Your task to perform on an android device: Clear the shopping cart on newegg. Search for logitech g pro on newegg, select the first entry, and add it to the cart. Image 0: 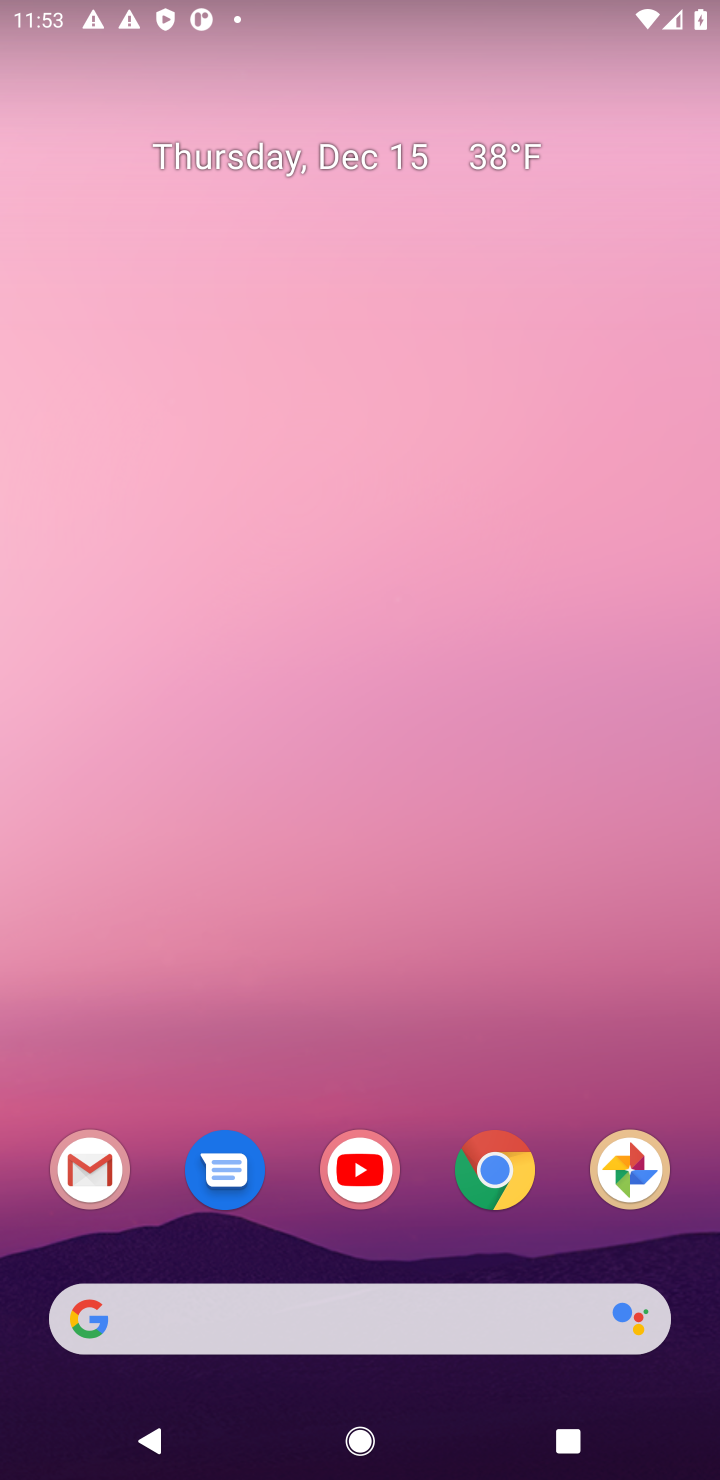
Step 0: click (498, 1182)
Your task to perform on an android device: Clear the shopping cart on newegg. Search for logitech g pro on newegg, select the first entry, and add it to the cart. Image 1: 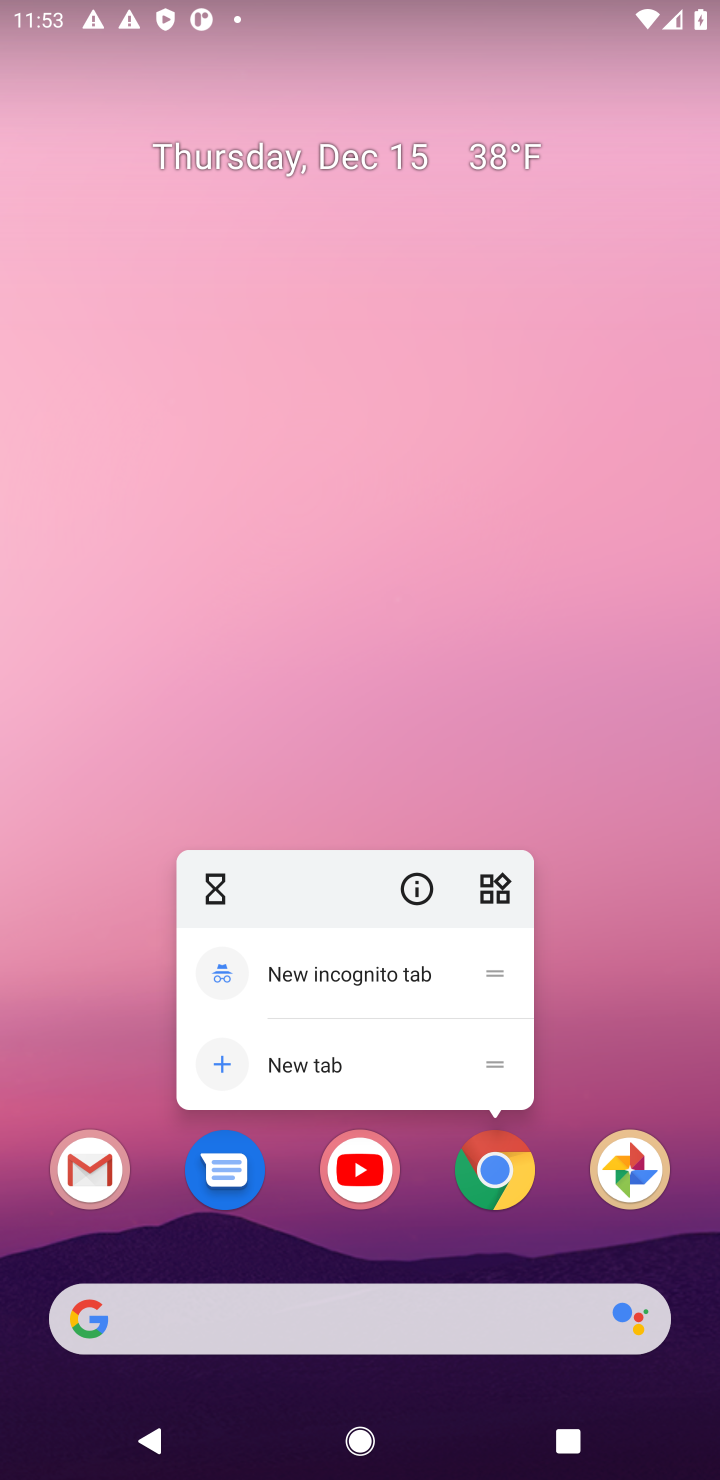
Step 1: click (498, 1182)
Your task to perform on an android device: Clear the shopping cart on newegg. Search for logitech g pro on newegg, select the first entry, and add it to the cart. Image 2: 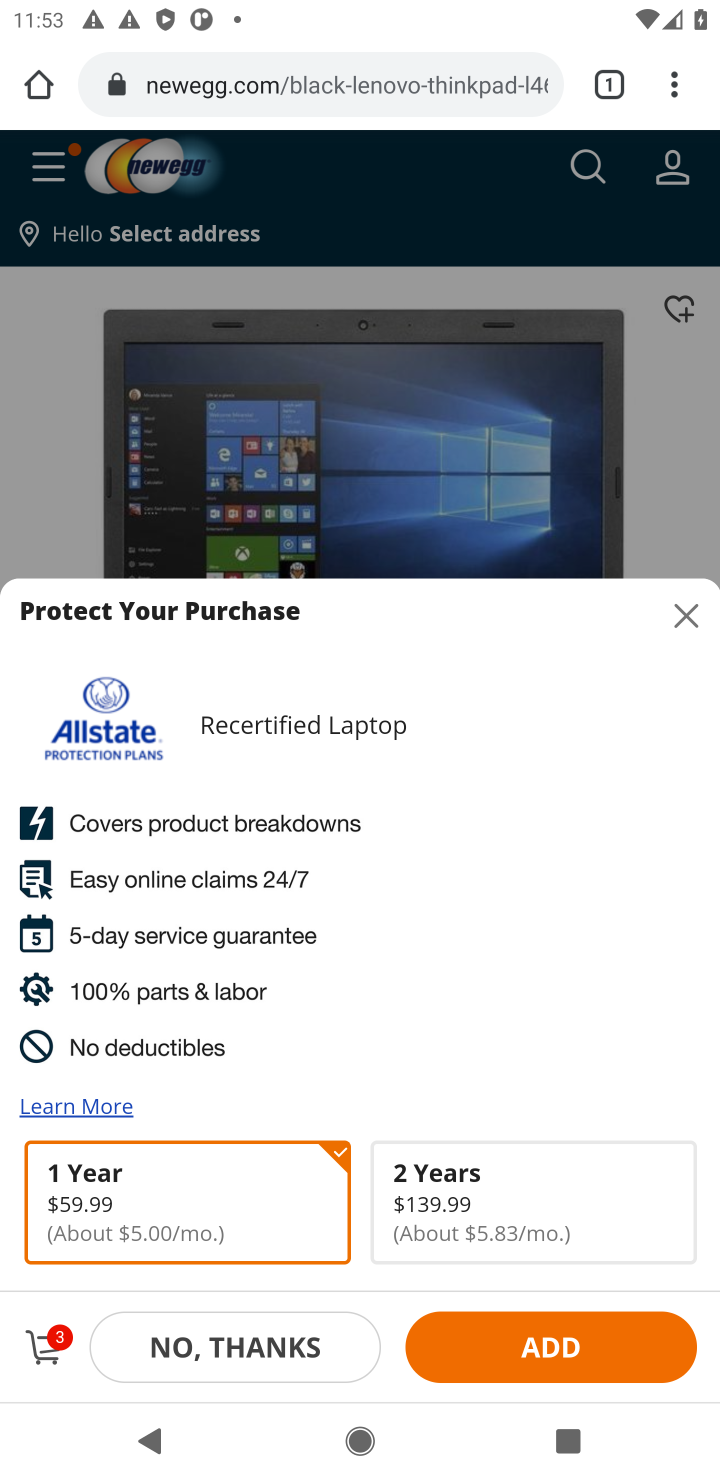
Step 2: click (56, 1342)
Your task to perform on an android device: Clear the shopping cart on newegg. Search for logitech g pro on newegg, select the first entry, and add it to the cart. Image 3: 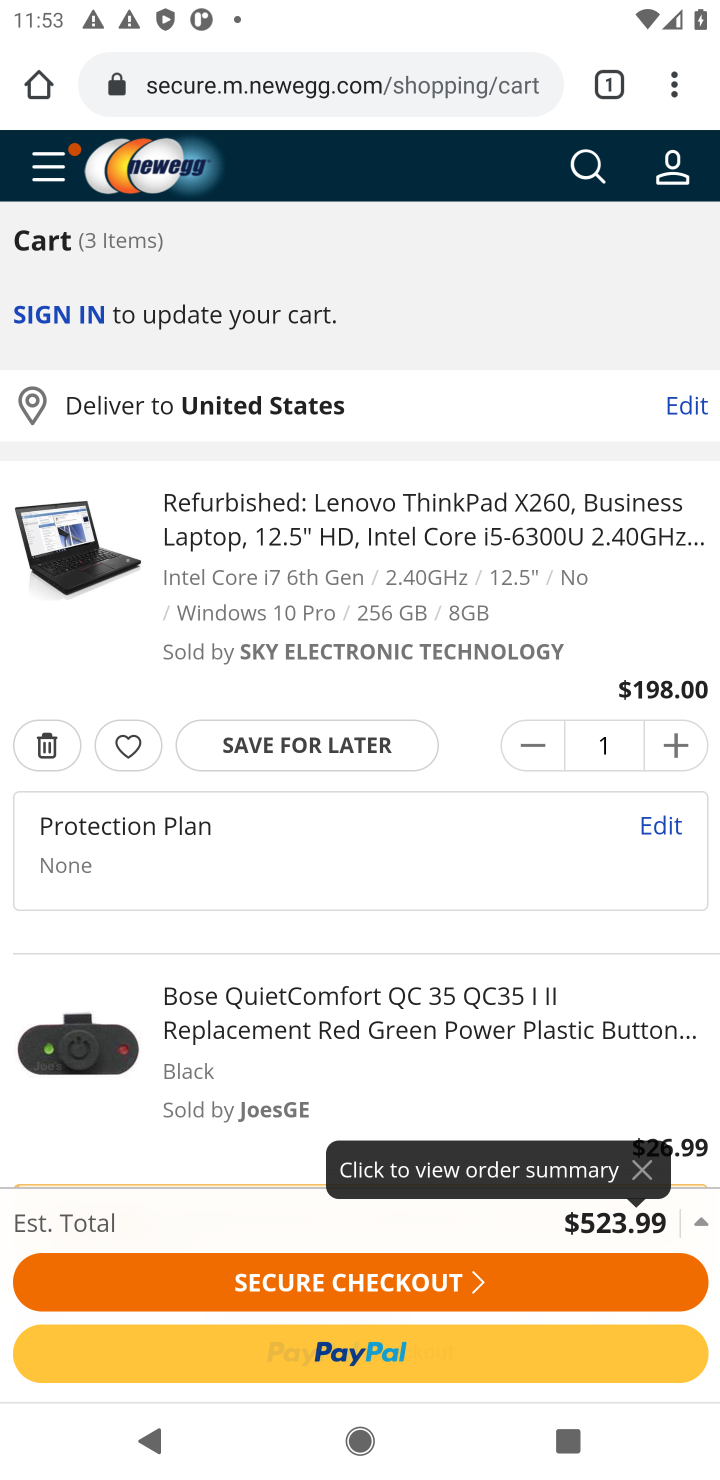
Step 3: click (40, 747)
Your task to perform on an android device: Clear the shopping cart on newegg. Search for logitech g pro on newegg, select the first entry, and add it to the cart. Image 4: 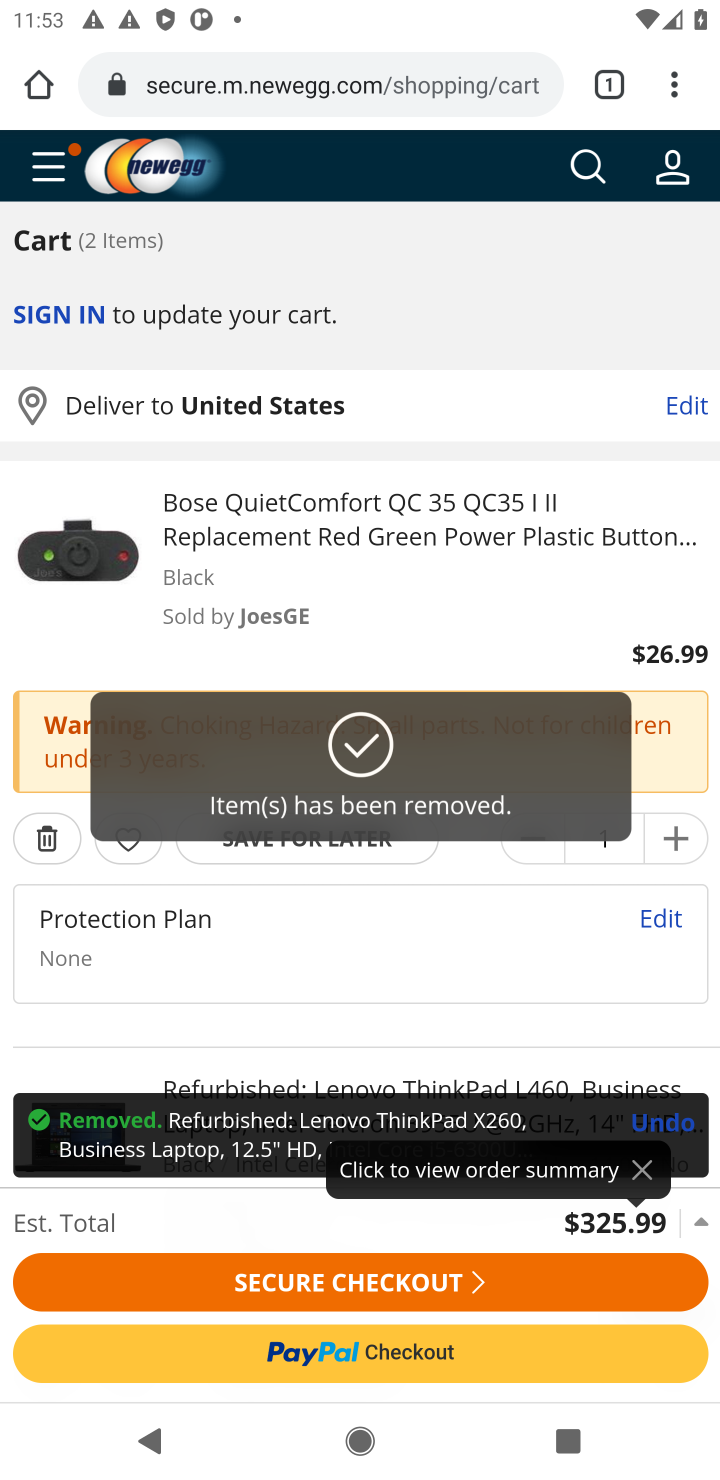
Step 4: click (38, 830)
Your task to perform on an android device: Clear the shopping cart on newegg. Search for logitech g pro on newegg, select the first entry, and add it to the cart. Image 5: 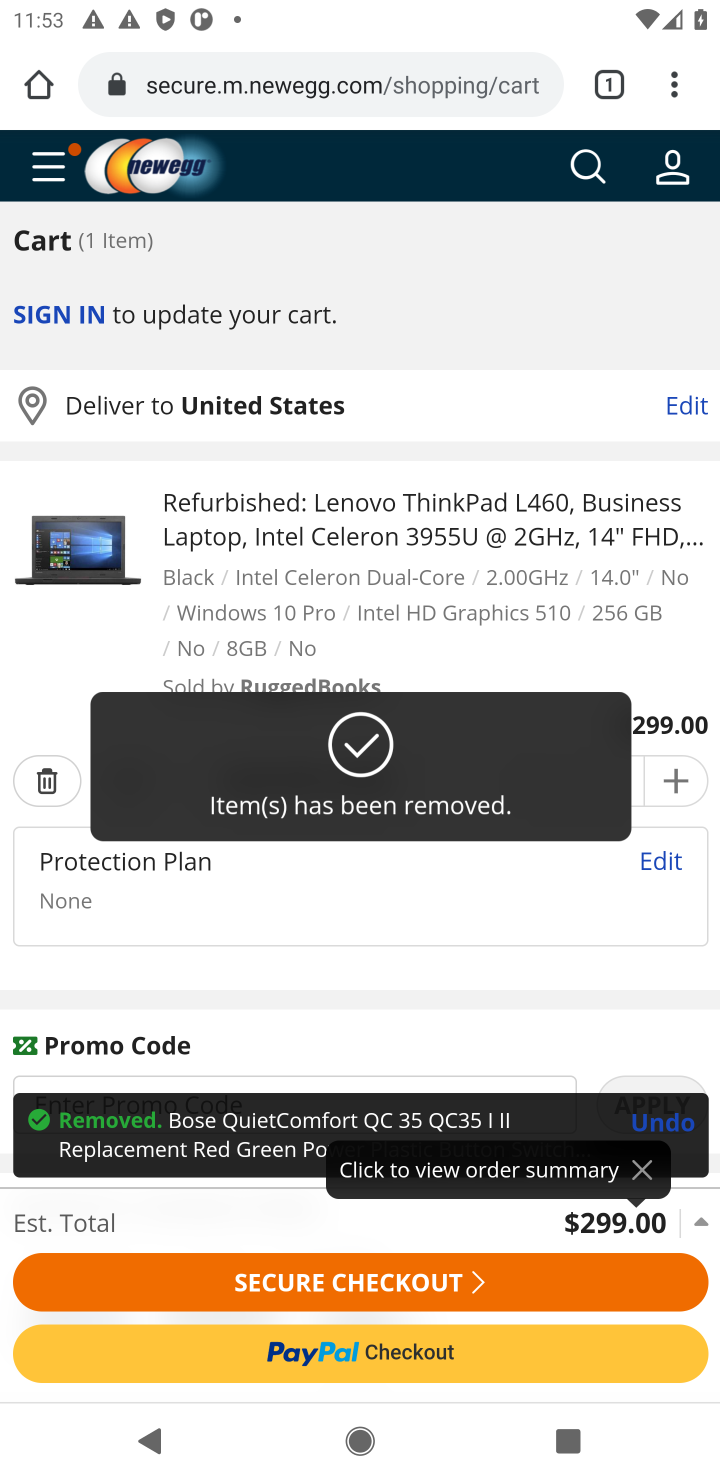
Step 5: click (55, 787)
Your task to perform on an android device: Clear the shopping cart on newegg. Search for logitech g pro on newegg, select the first entry, and add it to the cart. Image 6: 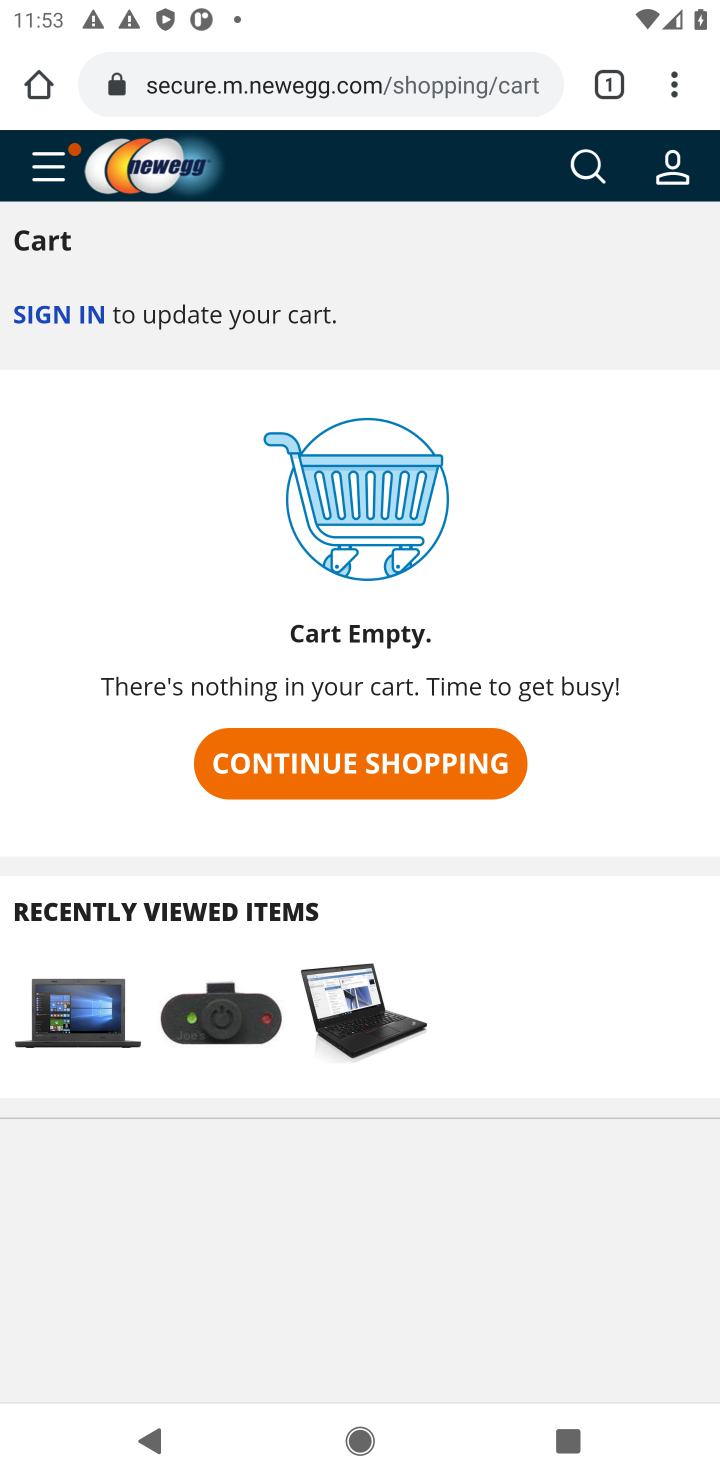
Step 6: click (578, 192)
Your task to perform on an android device: Clear the shopping cart on newegg. Search for logitech g pro on newegg, select the first entry, and add it to the cart. Image 7: 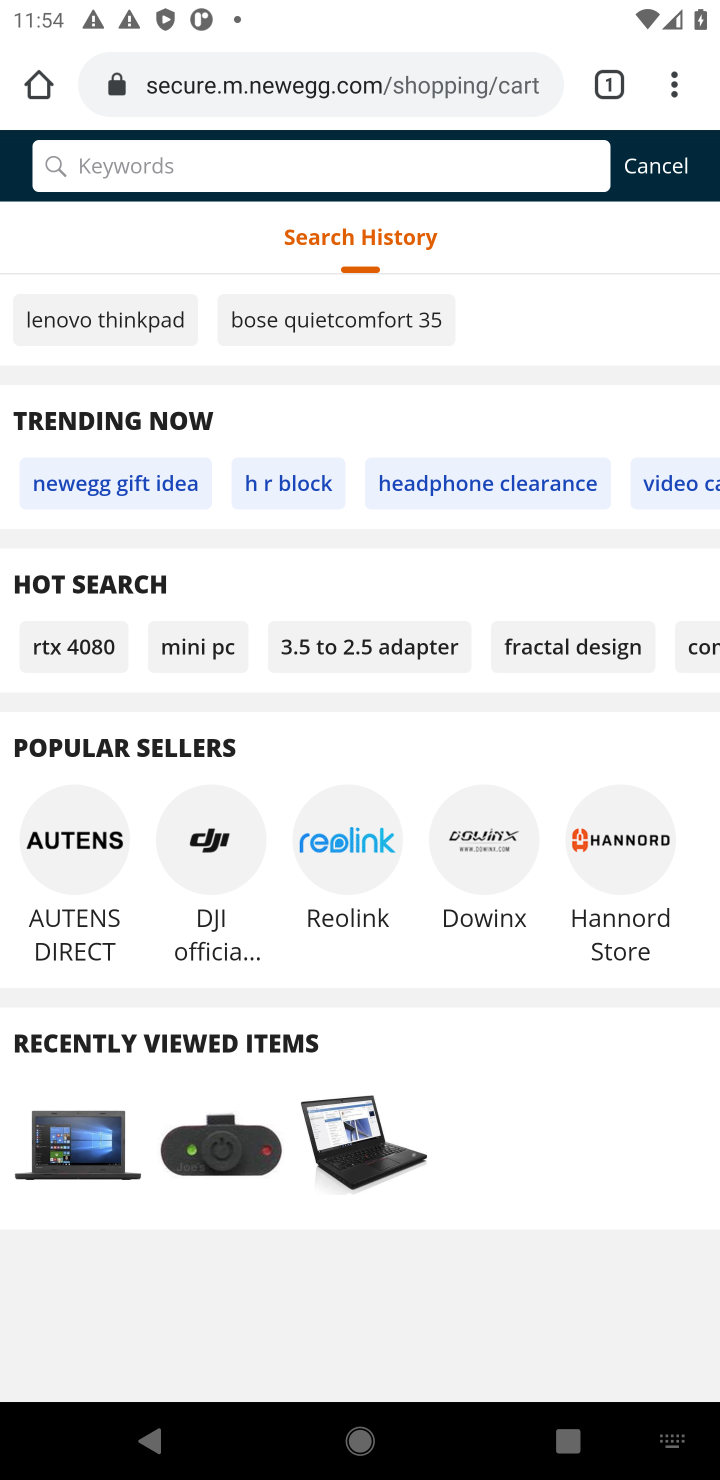
Step 7: type "logitech g pro"
Your task to perform on an android device: Clear the shopping cart on newegg. Search for logitech g pro on newegg, select the first entry, and add it to the cart. Image 8: 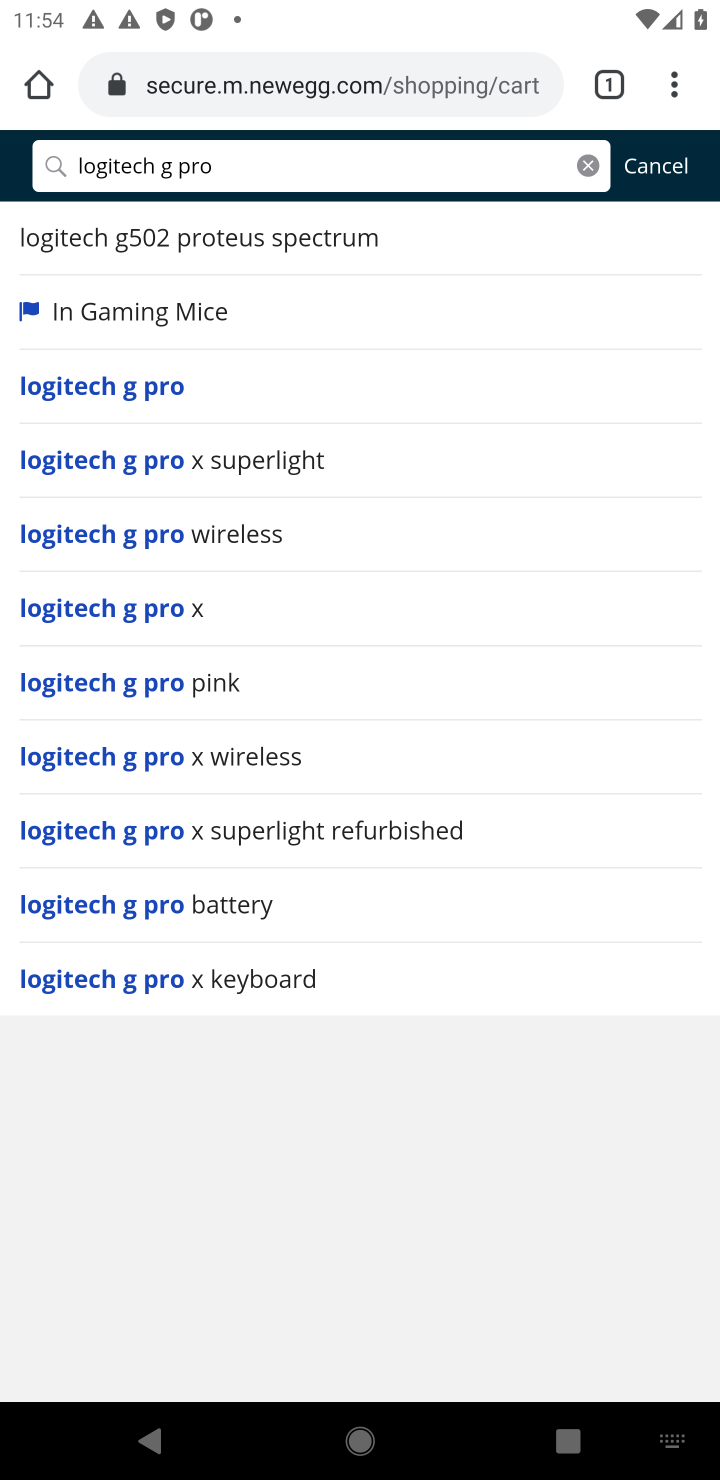
Step 8: click (105, 383)
Your task to perform on an android device: Clear the shopping cart on newegg. Search for logitech g pro on newegg, select the first entry, and add it to the cart. Image 9: 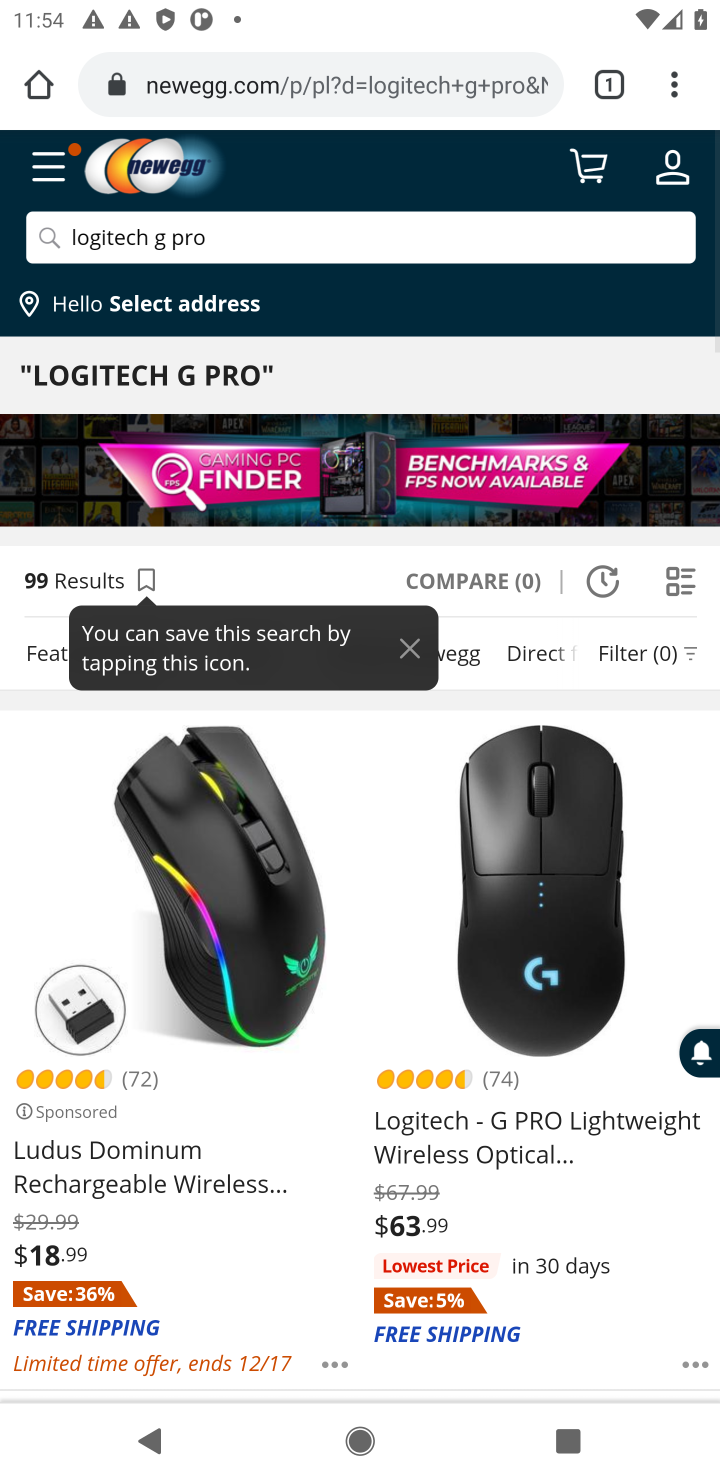
Step 9: task complete